Your task to perform on an android device: Go to calendar. Show me events next week Image 0: 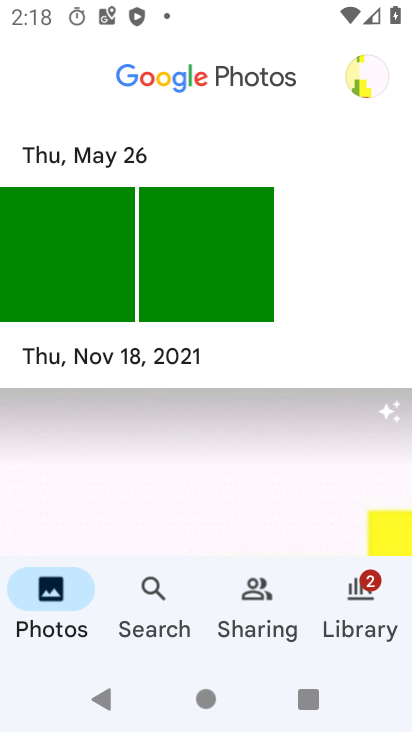
Step 0: press home button
Your task to perform on an android device: Go to calendar. Show me events next week Image 1: 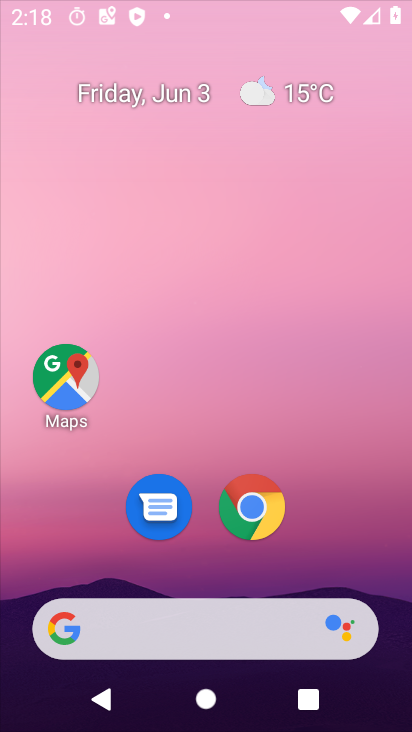
Step 1: drag from (378, 505) to (286, 56)
Your task to perform on an android device: Go to calendar. Show me events next week Image 2: 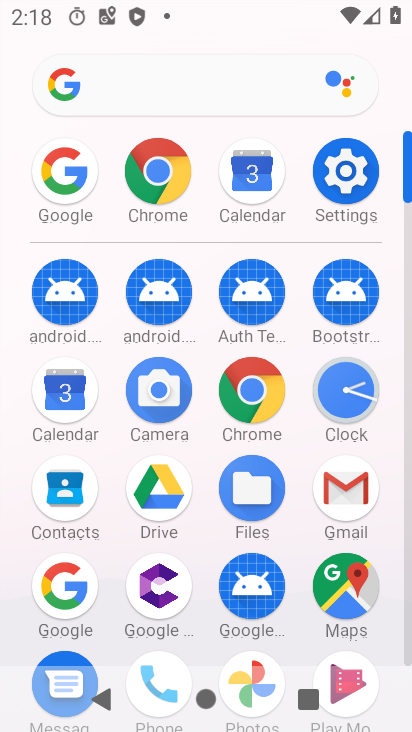
Step 2: click (71, 403)
Your task to perform on an android device: Go to calendar. Show me events next week Image 3: 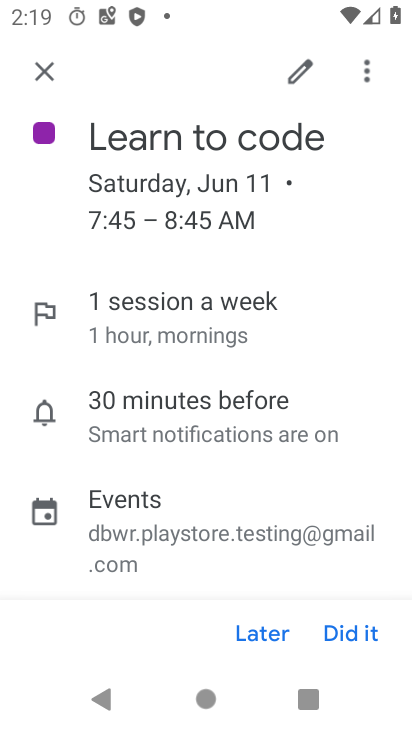
Step 3: task complete